Your task to perform on an android device: toggle pop-ups in chrome Image 0: 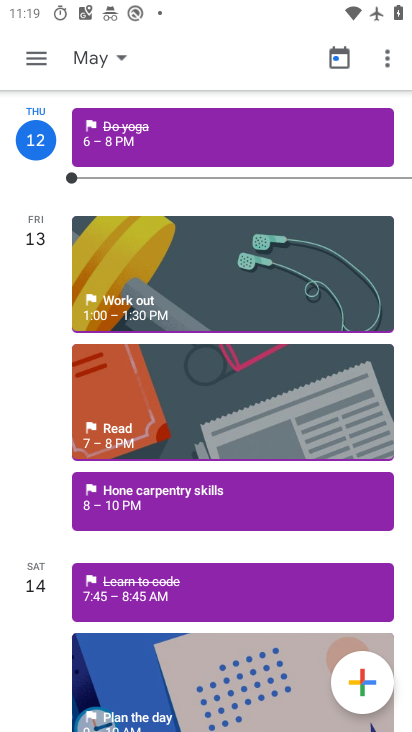
Step 0: press back button
Your task to perform on an android device: toggle pop-ups in chrome Image 1: 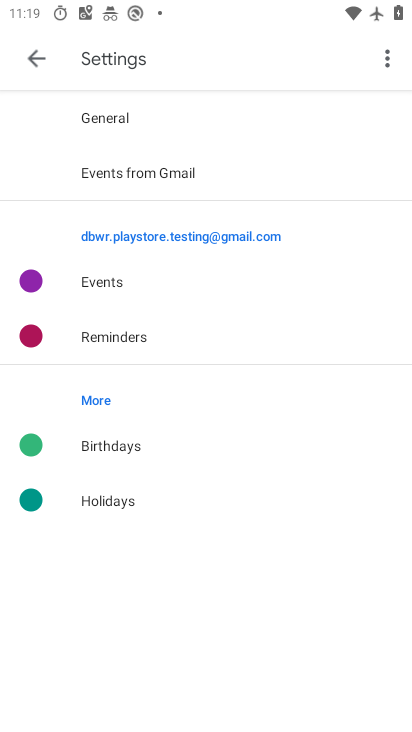
Step 1: click (35, 58)
Your task to perform on an android device: toggle pop-ups in chrome Image 2: 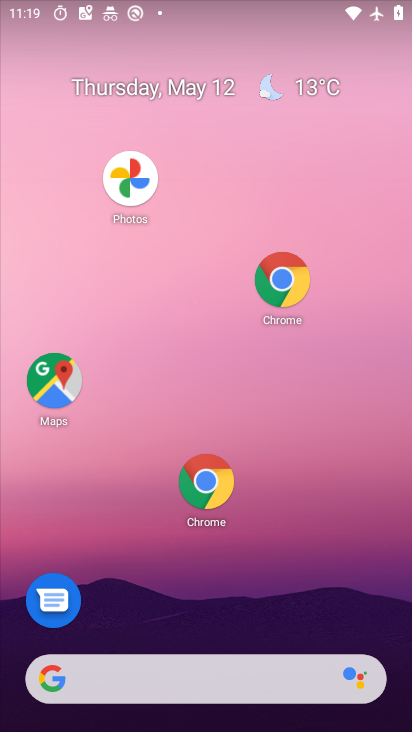
Step 2: drag from (312, 581) to (161, 90)
Your task to perform on an android device: toggle pop-ups in chrome Image 3: 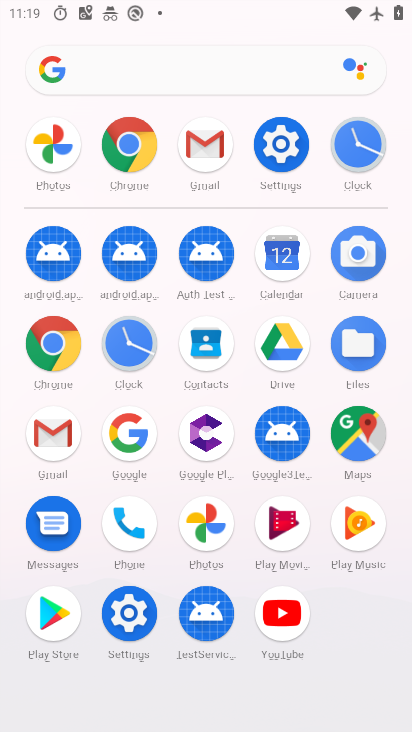
Step 3: click (122, 142)
Your task to perform on an android device: toggle pop-ups in chrome Image 4: 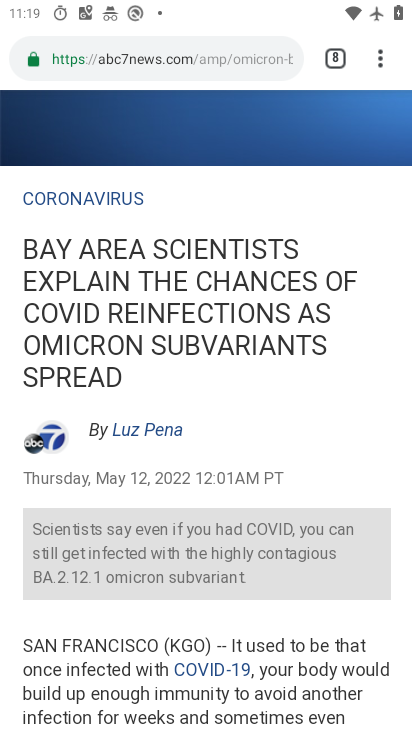
Step 4: drag from (257, 518) to (248, 110)
Your task to perform on an android device: toggle pop-ups in chrome Image 5: 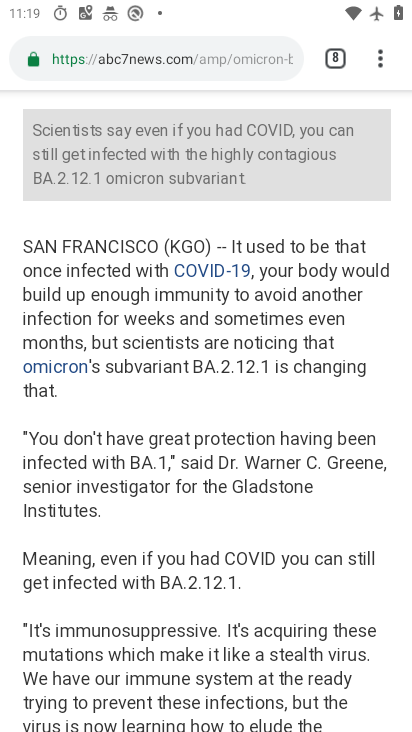
Step 5: press back button
Your task to perform on an android device: toggle pop-ups in chrome Image 6: 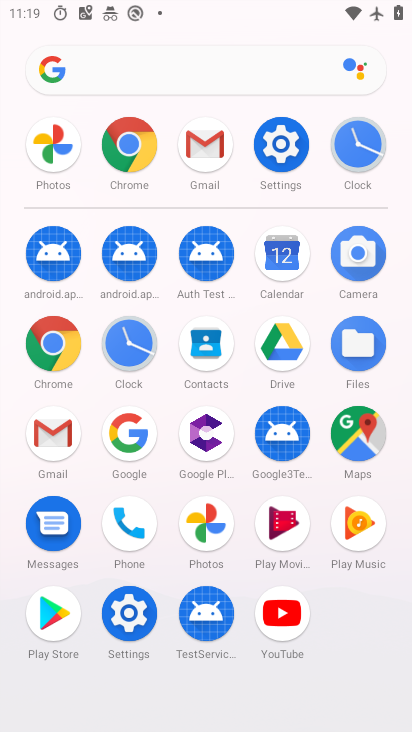
Step 6: click (131, 142)
Your task to perform on an android device: toggle pop-ups in chrome Image 7: 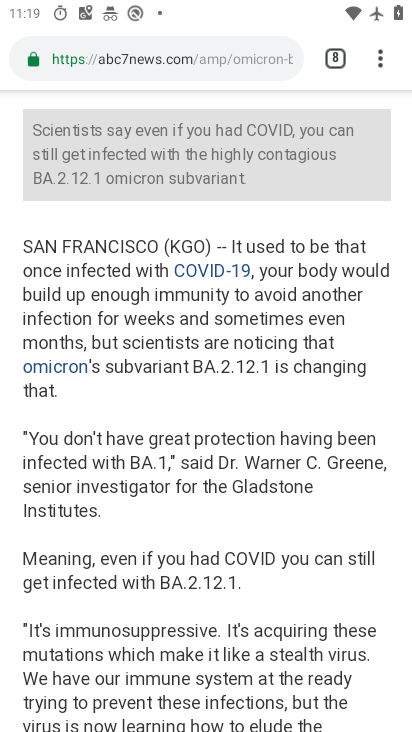
Step 7: drag from (373, 58) to (158, 629)
Your task to perform on an android device: toggle pop-ups in chrome Image 8: 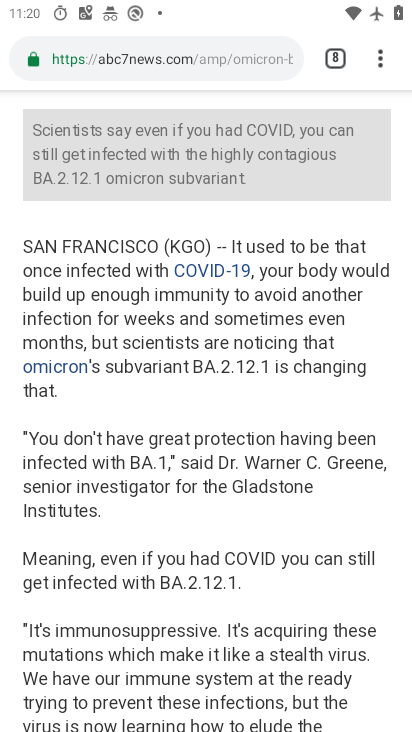
Step 8: click (153, 633)
Your task to perform on an android device: toggle pop-ups in chrome Image 9: 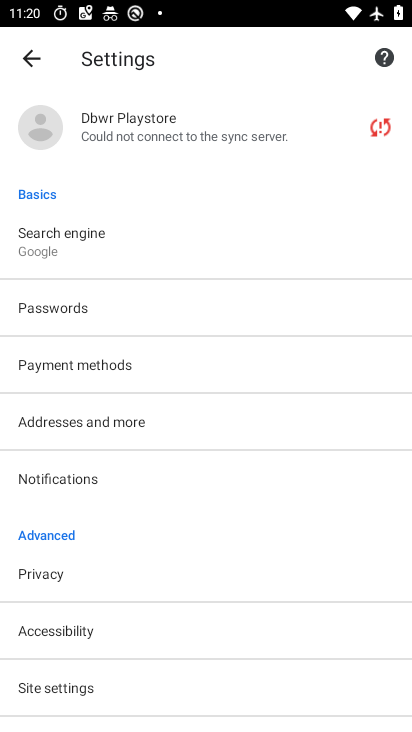
Step 9: drag from (107, 554) to (109, 188)
Your task to perform on an android device: toggle pop-ups in chrome Image 10: 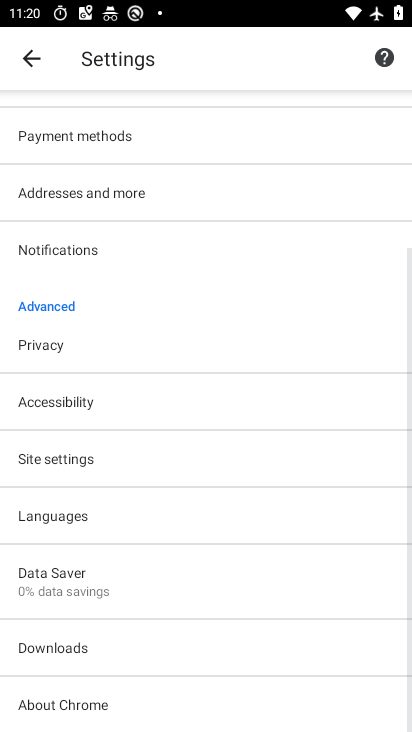
Step 10: click (50, 456)
Your task to perform on an android device: toggle pop-ups in chrome Image 11: 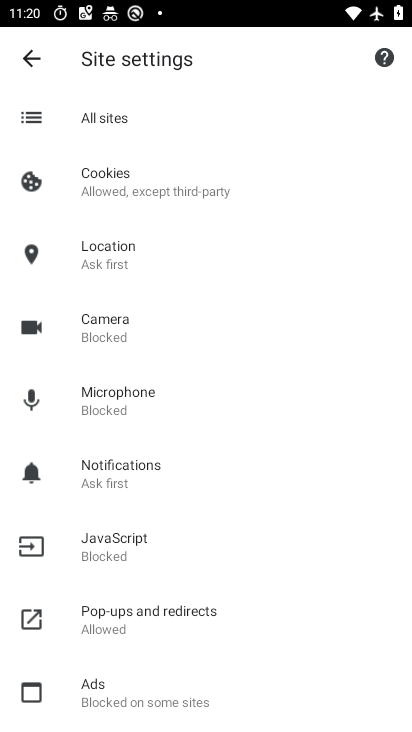
Step 11: click (106, 611)
Your task to perform on an android device: toggle pop-ups in chrome Image 12: 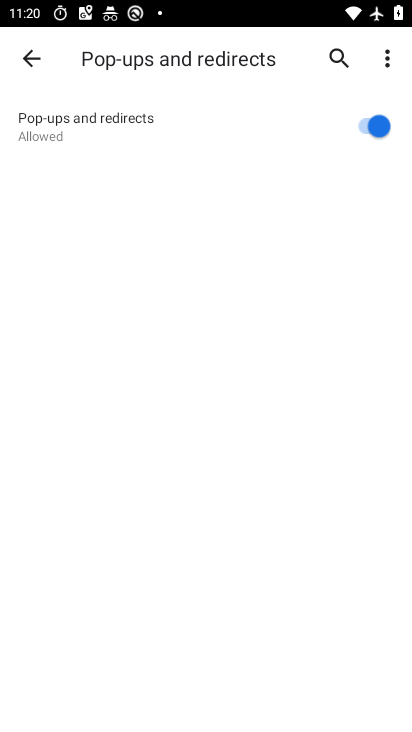
Step 12: click (384, 124)
Your task to perform on an android device: toggle pop-ups in chrome Image 13: 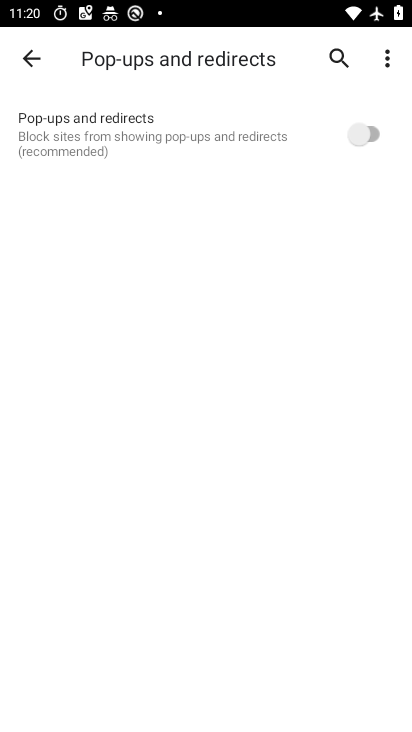
Step 13: task complete